Your task to perform on an android device: Open calendar and show me the first week of next month Image 0: 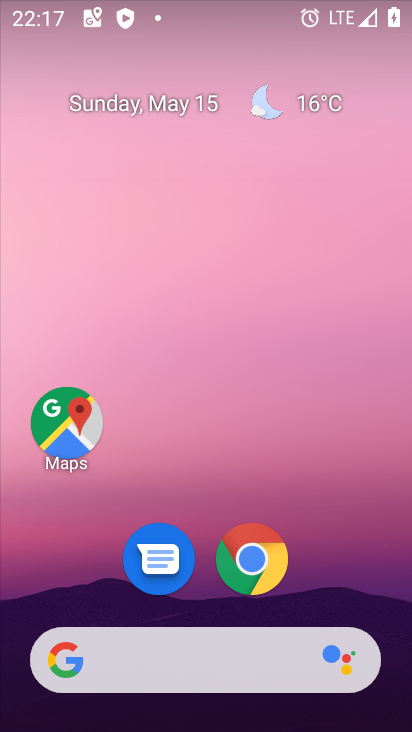
Step 0: drag from (187, 450) to (135, 29)
Your task to perform on an android device: Open calendar and show me the first week of next month Image 1: 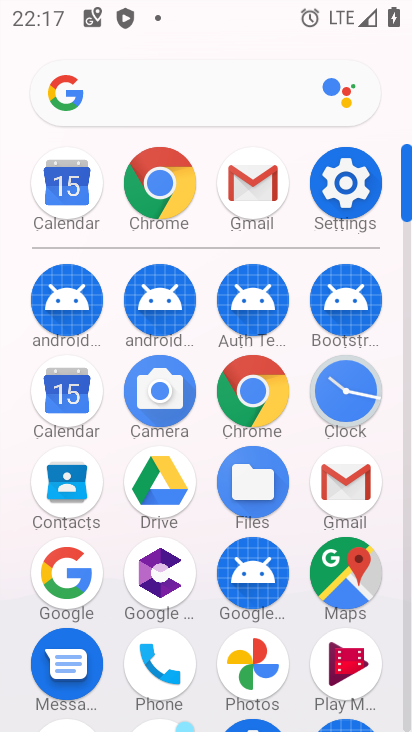
Step 1: click (64, 399)
Your task to perform on an android device: Open calendar and show me the first week of next month Image 2: 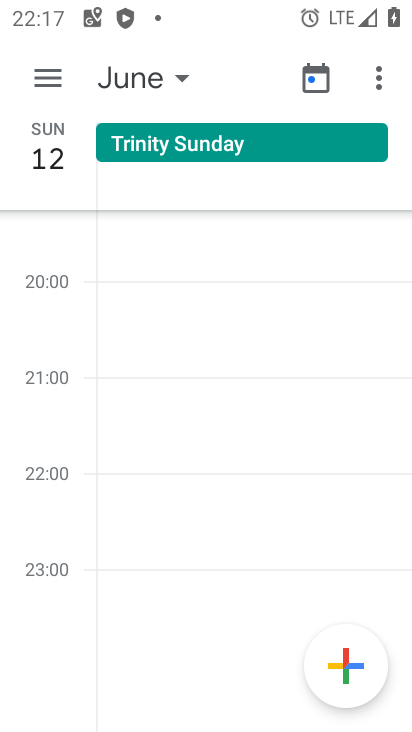
Step 2: click (175, 85)
Your task to perform on an android device: Open calendar and show me the first week of next month Image 3: 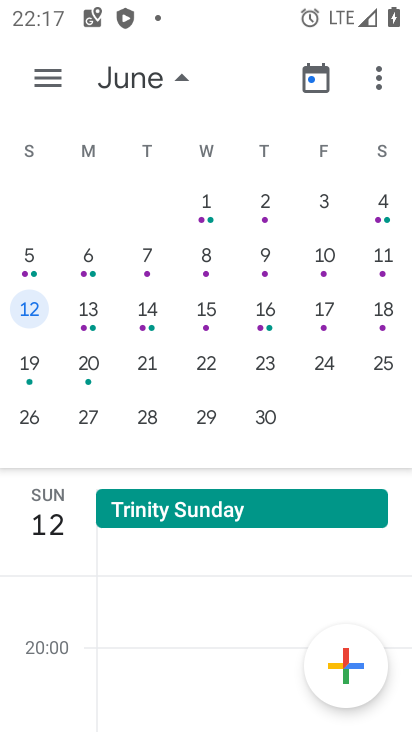
Step 3: click (212, 198)
Your task to perform on an android device: Open calendar and show me the first week of next month Image 4: 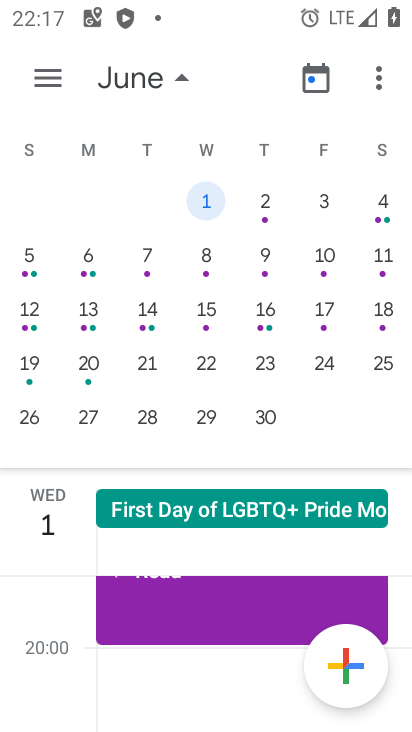
Step 4: click (53, 80)
Your task to perform on an android device: Open calendar and show me the first week of next month Image 5: 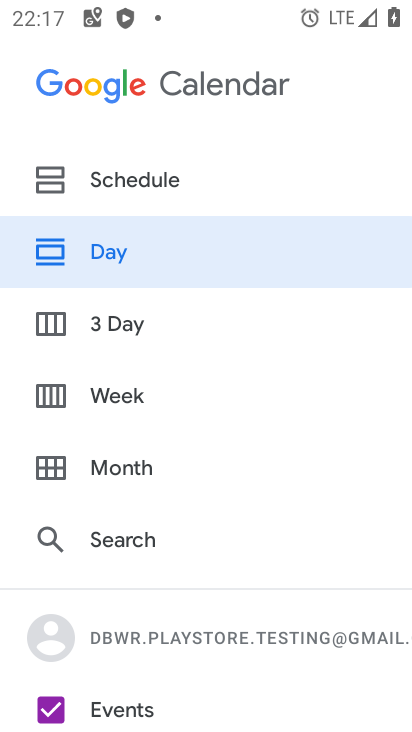
Step 5: click (112, 395)
Your task to perform on an android device: Open calendar and show me the first week of next month Image 6: 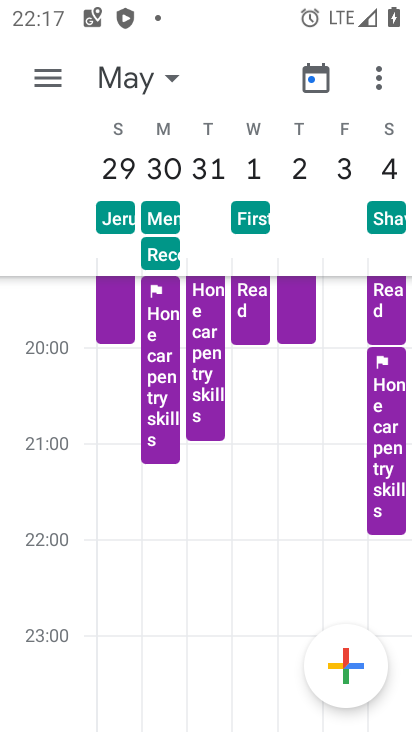
Step 6: click (174, 72)
Your task to perform on an android device: Open calendar and show me the first week of next month Image 7: 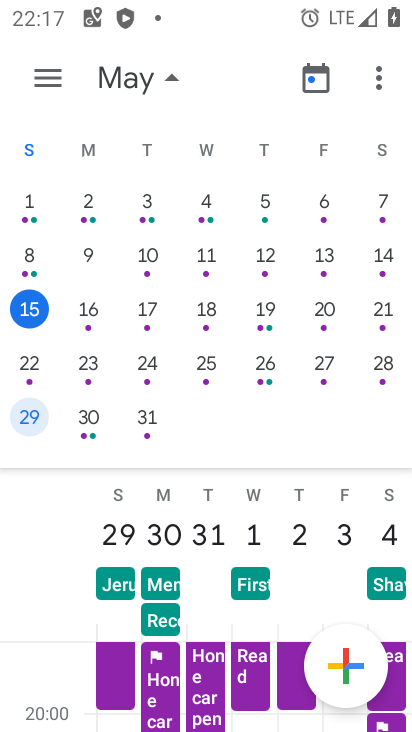
Step 7: task complete